Your task to perform on an android device: Is it going to rain tomorrow? Image 0: 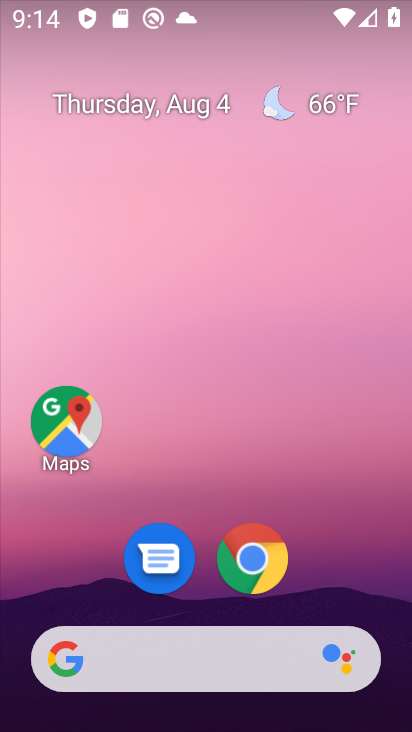
Step 0: click (329, 106)
Your task to perform on an android device: Is it going to rain tomorrow? Image 1: 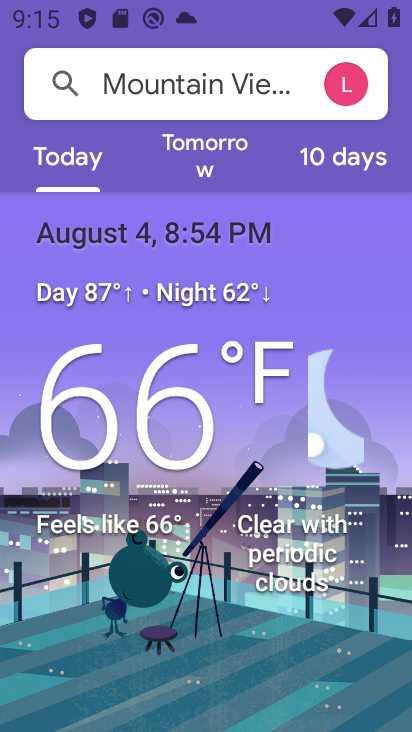
Step 1: click (211, 154)
Your task to perform on an android device: Is it going to rain tomorrow? Image 2: 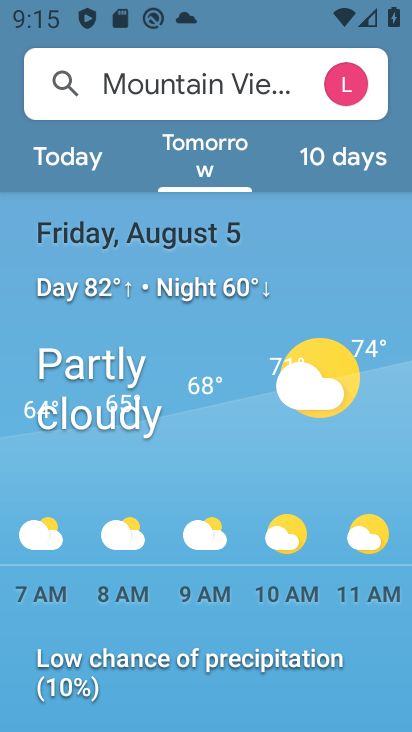
Step 2: task complete